Your task to perform on an android device: toggle notification dots Image 0: 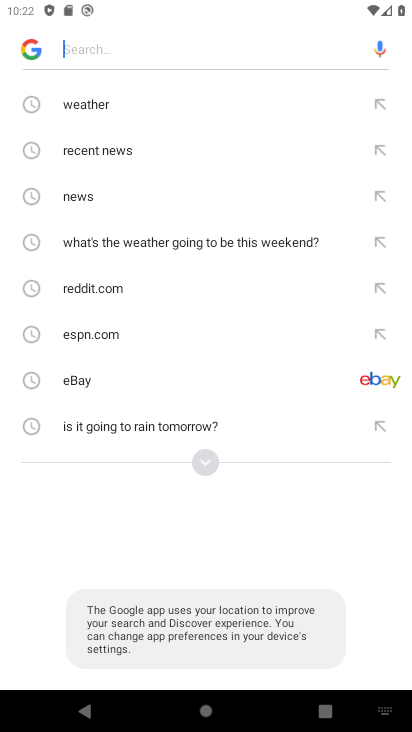
Step 0: press home button
Your task to perform on an android device: toggle notification dots Image 1: 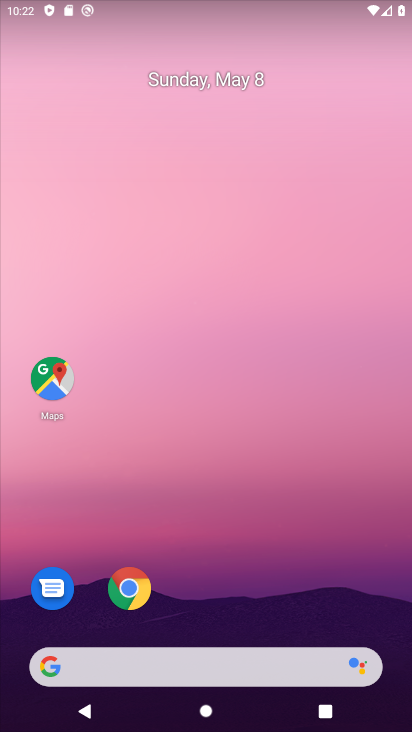
Step 1: drag from (263, 595) to (196, 99)
Your task to perform on an android device: toggle notification dots Image 2: 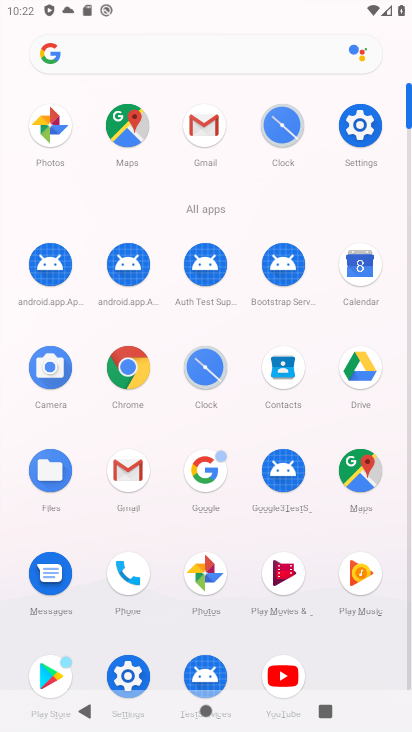
Step 2: click (367, 124)
Your task to perform on an android device: toggle notification dots Image 3: 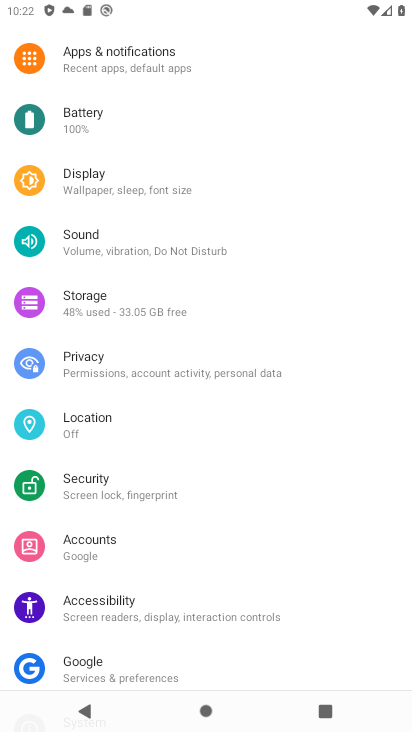
Step 3: click (161, 70)
Your task to perform on an android device: toggle notification dots Image 4: 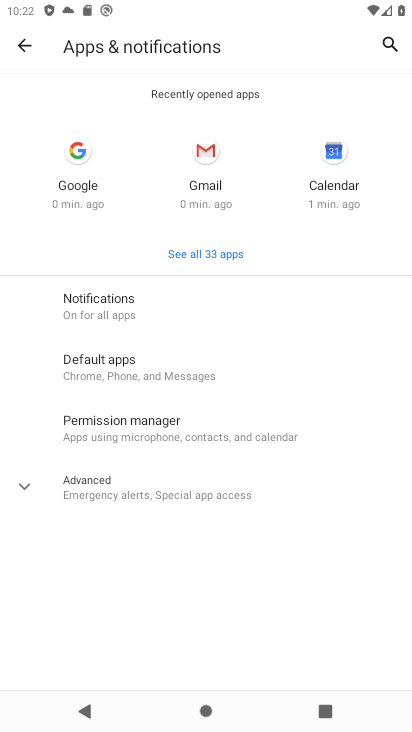
Step 4: click (172, 314)
Your task to perform on an android device: toggle notification dots Image 5: 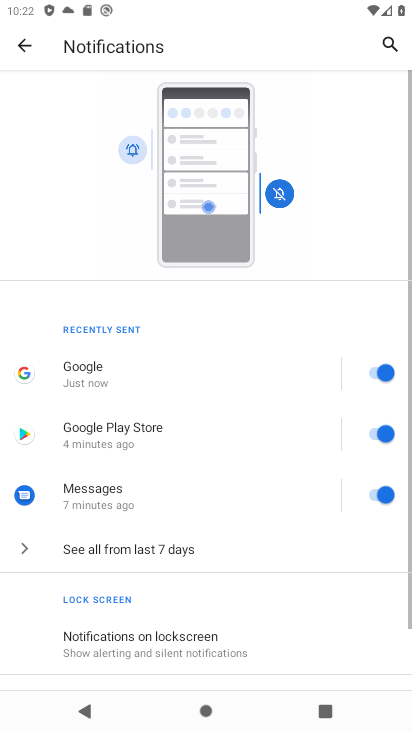
Step 5: drag from (276, 606) to (273, 237)
Your task to perform on an android device: toggle notification dots Image 6: 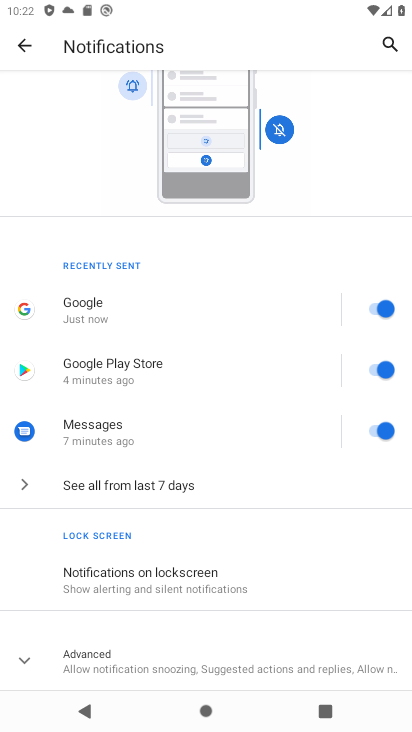
Step 6: click (174, 650)
Your task to perform on an android device: toggle notification dots Image 7: 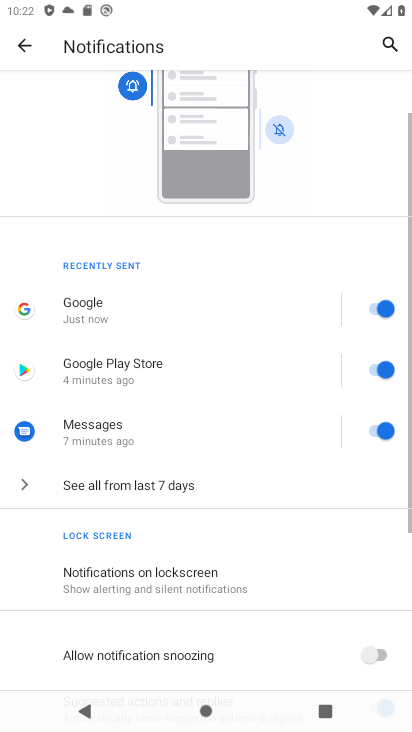
Step 7: drag from (202, 634) to (276, 182)
Your task to perform on an android device: toggle notification dots Image 8: 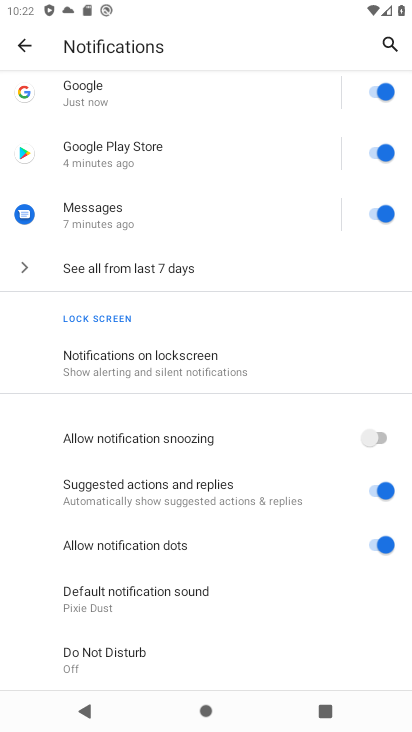
Step 8: click (385, 541)
Your task to perform on an android device: toggle notification dots Image 9: 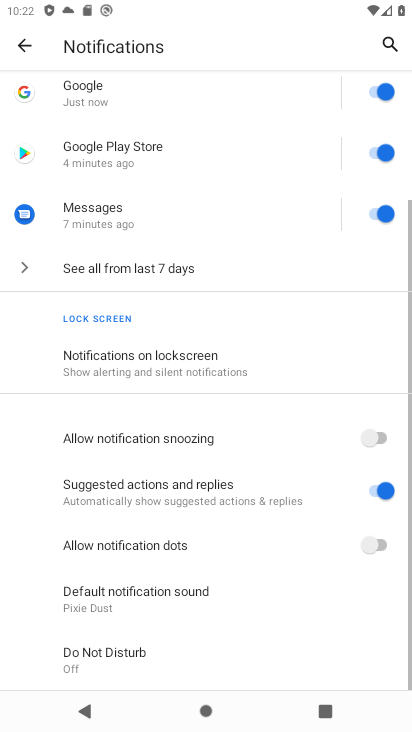
Step 9: task complete